Your task to perform on an android device: open app "Adobe Express: Graphic Design" (install if not already installed) and enter user name: "deliveries@gmail.com" and password: "regimentation" Image 0: 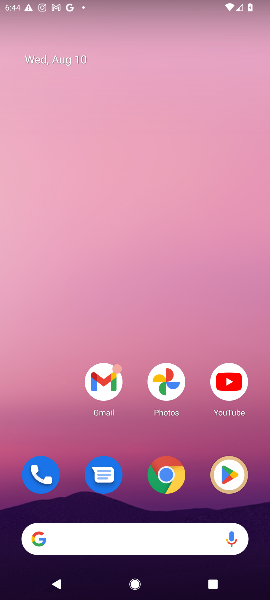
Step 0: drag from (118, 527) to (167, 160)
Your task to perform on an android device: open app "Adobe Express: Graphic Design" (install if not already installed) and enter user name: "deliveries@gmail.com" and password: "regimentation" Image 1: 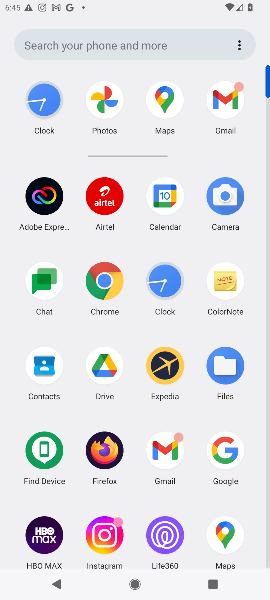
Step 1: drag from (76, 536) to (92, 285)
Your task to perform on an android device: open app "Adobe Express: Graphic Design" (install if not already installed) and enter user name: "deliveries@gmail.com" and password: "regimentation" Image 2: 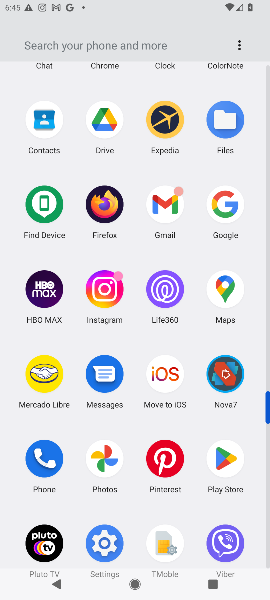
Step 2: click (221, 466)
Your task to perform on an android device: open app "Adobe Express: Graphic Design" (install if not already installed) and enter user name: "deliveries@gmail.com" and password: "regimentation" Image 3: 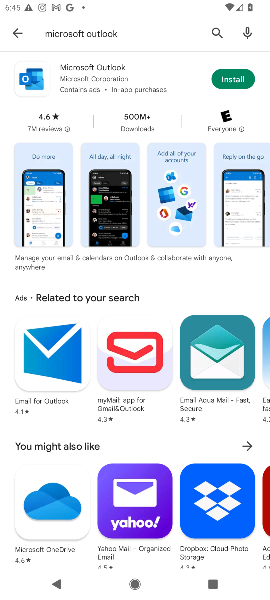
Step 3: click (246, 28)
Your task to perform on an android device: open app "Adobe Express: Graphic Design" (install if not already installed) and enter user name: "deliveries@gmail.com" and password: "regimentation" Image 4: 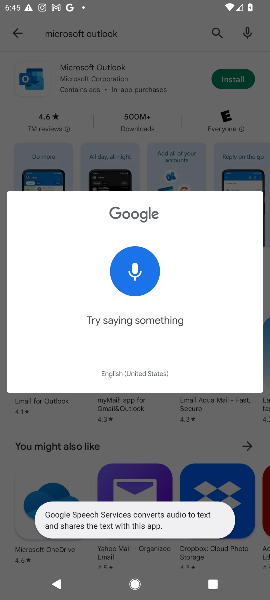
Step 4: click (139, 181)
Your task to perform on an android device: open app "Adobe Express: Graphic Design" (install if not already installed) and enter user name: "deliveries@gmail.com" and password: "regimentation" Image 5: 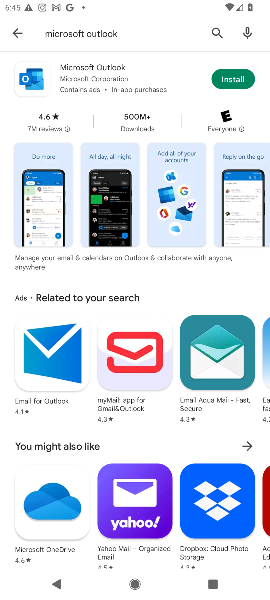
Step 5: click (215, 29)
Your task to perform on an android device: open app "Adobe Express: Graphic Design" (install if not already installed) and enter user name: "deliveries@gmail.com" and password: "regimentation" Image 6: 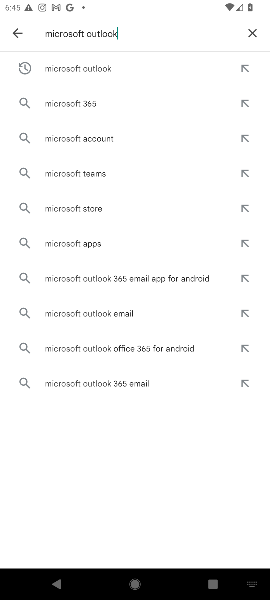
Step 6: click (253, 31)
Your task to perform on an android device: open app "Adobe Express: Graphic Design" (install if not already installed) and enter user name: "deliveries@gmail.com" and password: "regimentation" Image 7: 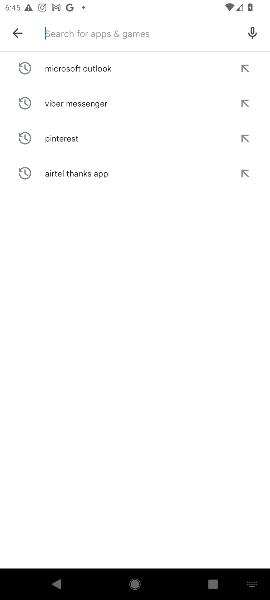
Step 7: click (103, 32)
Your task to perform on an android device: open app "Adobe Express: Graphic Design" (install if not already installed) and enter user name: "deliveries@gmail.com" and password: "regimentation" Image 8: 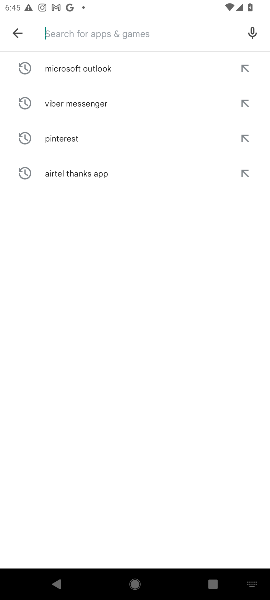
Step 8: type "Adobe Express: Graphic Design"
Your task to perform on an android device: open app "Adobe Express: Graphic Design" (install if not already installed) and enter user name: "deliveries@gmail.com" and password: "regimentation" Image 9: 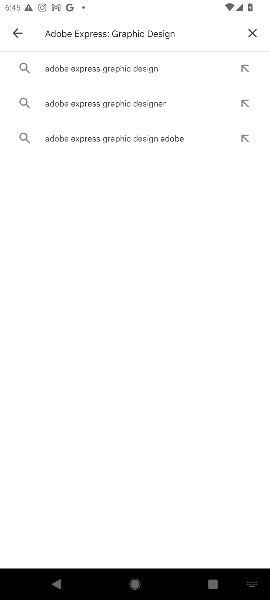
Step 9: click (90, 72)
Your task to perform on an android device: open app "Adobe Express: Graphic Design" (install if not already installed) and enter user name: "deliveries@gmail.com" and password: "regimentation" Image 10: 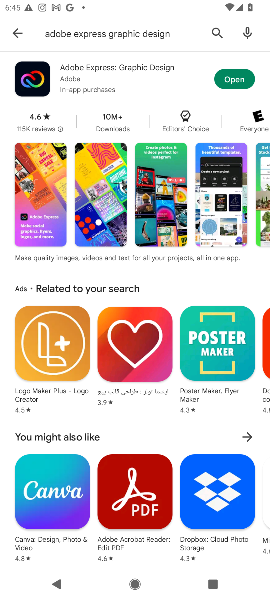
Step 10: click (166, 72)
Your task to perform on an android device: open app "Adobe Express: Graphic Design" (install if not already installed) and enter user name: "deliveries@gmail.com" and password: "regimentation" Image 11: 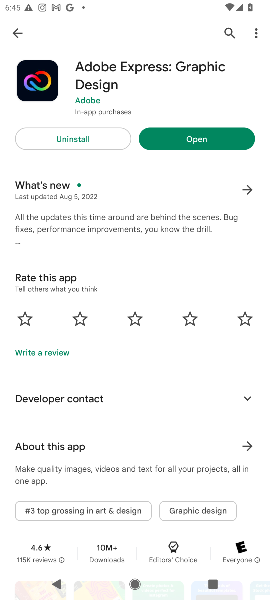
Step 11: click (175, 144)
Your task to perform on an android device: open app "Adobe Express: Graphic Design" (install if not already installed) and enter user name: "deliveries@gmail.com" and password: "regimentation" Image 12: 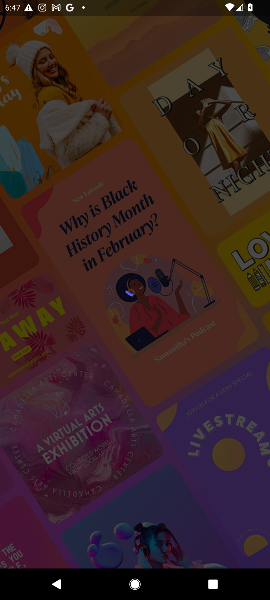
Step 12: task complete